Your task to perform on an android device: delete a single message in the gmail app Image 0: 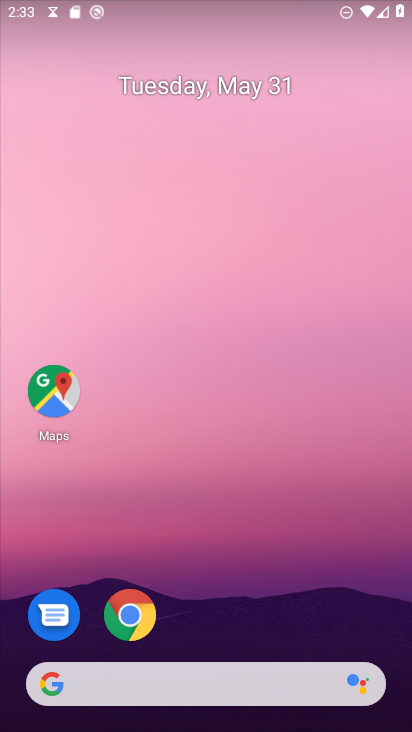
Step 0: drag from (308, 573) to (291, 191)
Your task to perform on an android device: delete a single message in the gmail app Image 1: 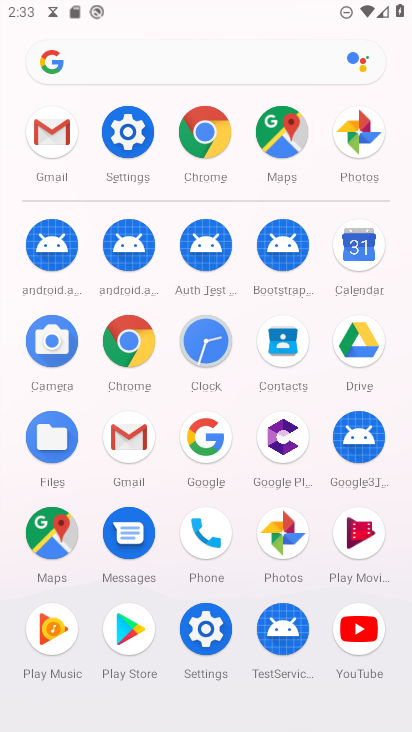
Step 1: click (120, 438)
Your task to perform on an android device: delete a single message in the gmail app Image 2: 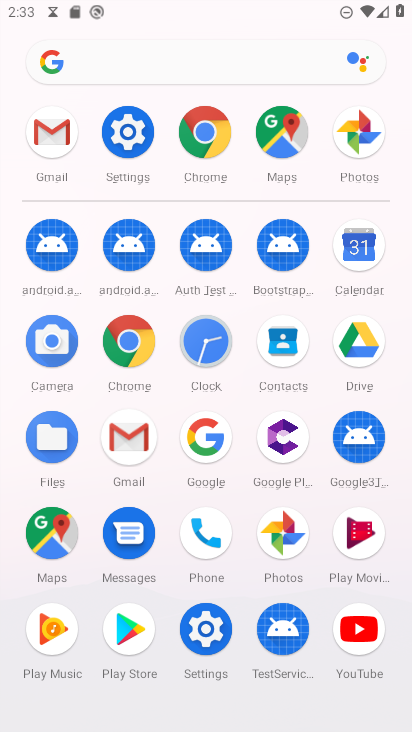
Step 2: click (123, 431)
Your task to perform on an android device: delete a single message in the gmail app Image 3: 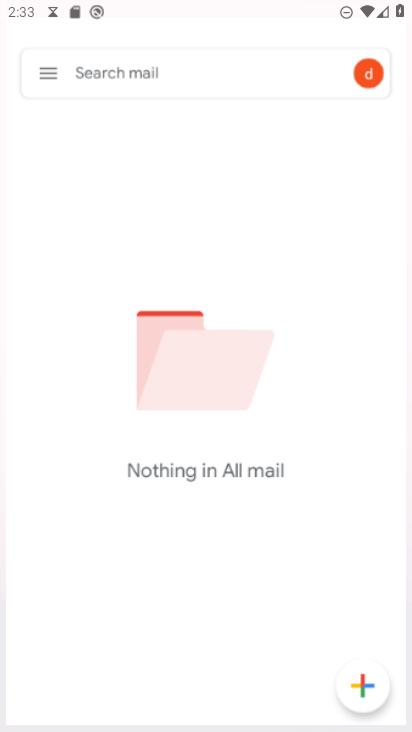
Step 3: click (126, 428)
Your task to perform on an android device: delete a single message in the gmail app Image 4: 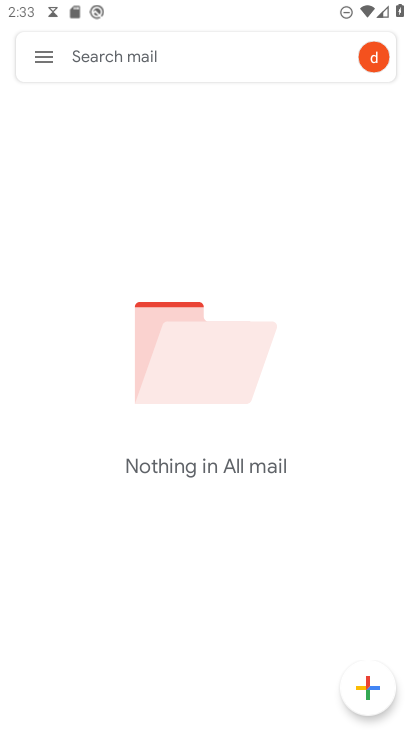
Step 4: click (42, 54)
Your task to perform on an android device: delete a single message in the gmail app Image 5: 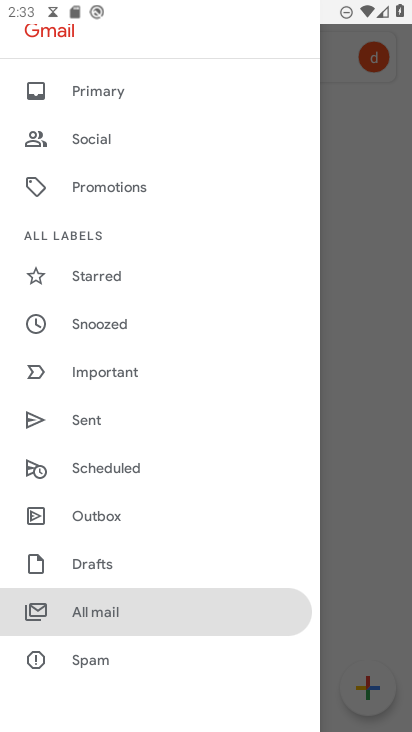
Step 5: click (109, 610)
Your task to perform on an android device: delete a single message in the gmail app Image 6: 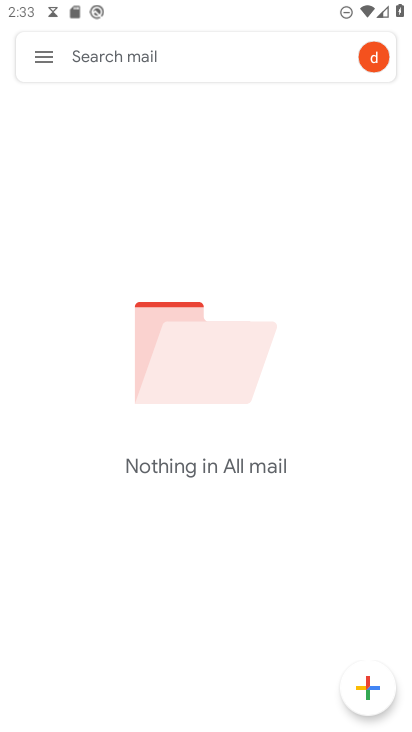
Step 6: task complete